Your task to perform on an android device: change the clock display to digital Image 0: 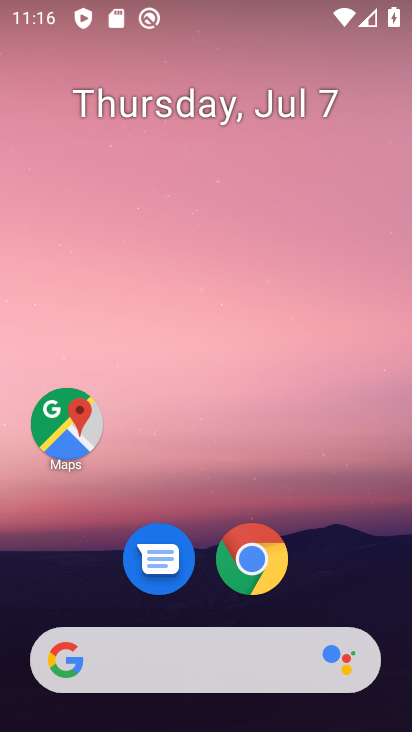
Step 0: drag from (354, 576) to (360, 180)
Your task to perform on an android device: change the clock display to digital Image 1: 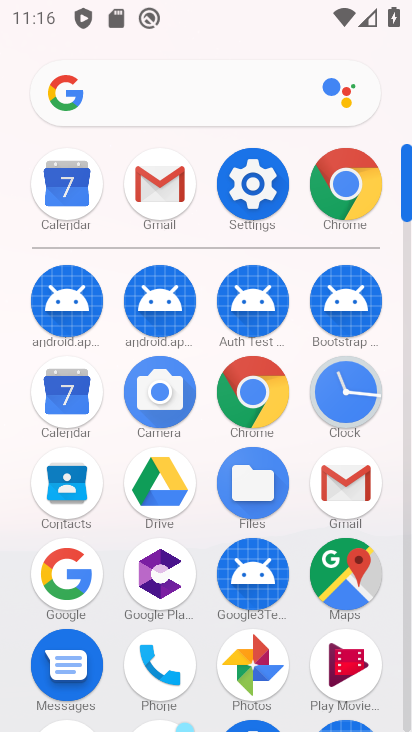
Step 1: click (353, 394)
Your task to perform on an android device: change the clock display to digital Image 2: 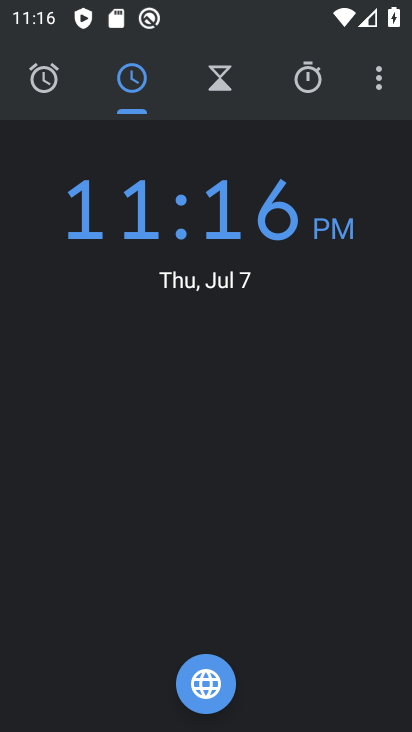
Step 2: click (381, 93)
Your task to perform on an android device: change the clock display to digital Image 3: 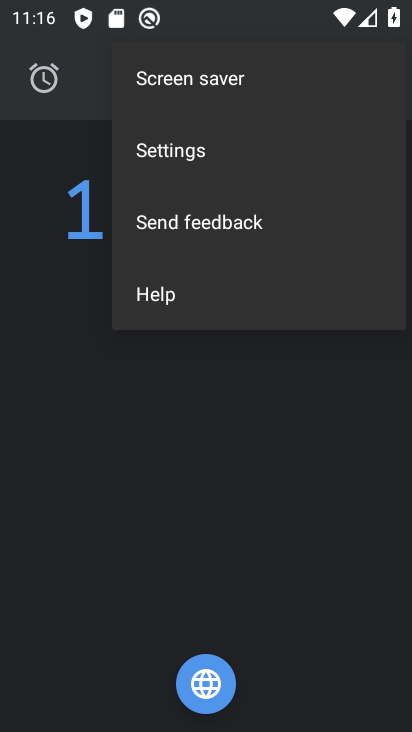
Step 3: click (285, 160)
Your task to perform on an android device: change the clock display to digital Image 4: 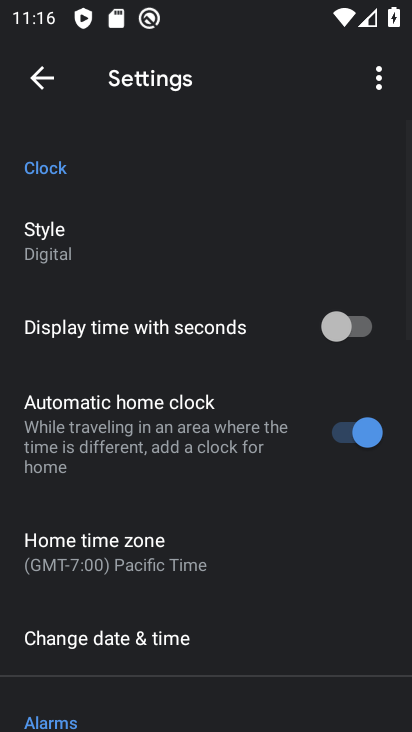
Step 4: task complete